Your task to perform on an android device: Open the Play Movies app and select the watchlist tab. Image 0: 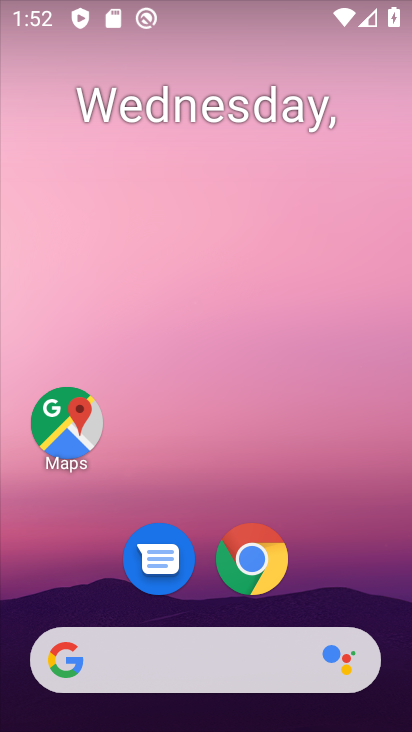
Step 0: press home button
Your task to perform on an android device: Open the Play Movies app and select the watchlist tab. Image 1: 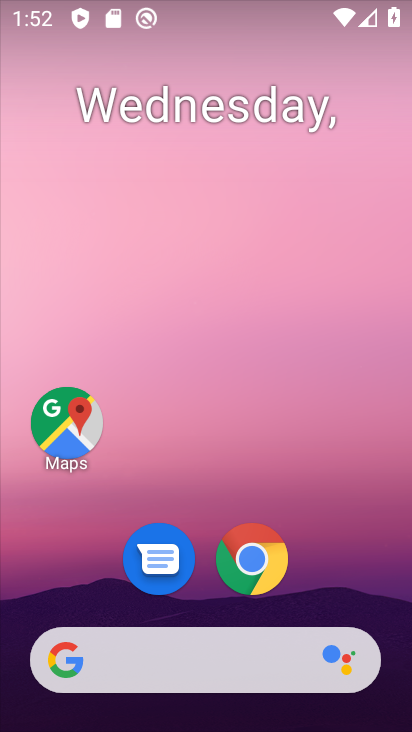
Step 1: drag from (374, 619) to (314, 138)
Your task to perform on an android device: Open the Play Movies app and select the watchlist tab. Image 2: 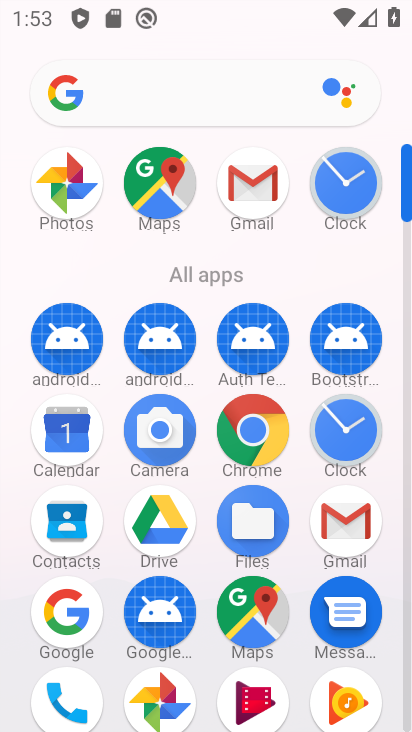
Step 2: click (256, 693)
Your task to perform on an android device: Open the Play Movies app and select the watchlist tab. Image 3: 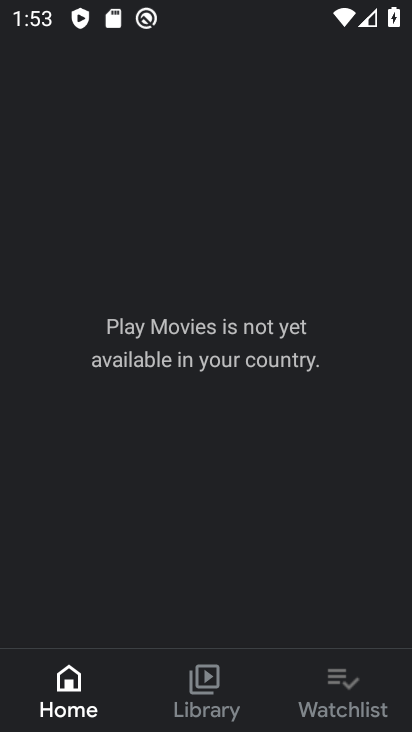
Step 3: click (360, 685)
Your task to perform on an android device: Open the Play Movies app and select the watchlist tab. Image 4: 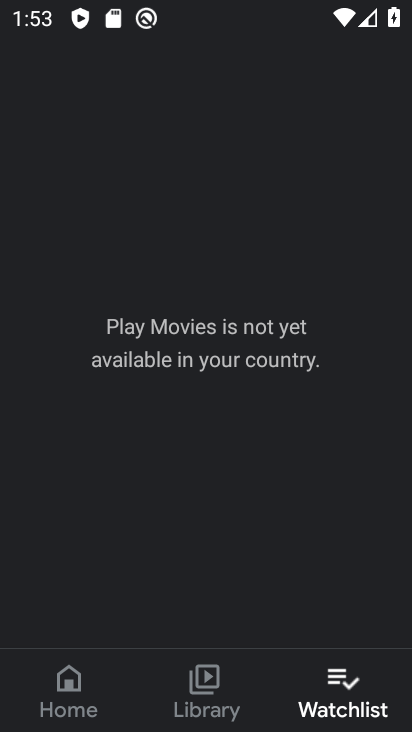
Step 4: task complete